Your task to perform on an android device: Open calendar and show me the third week of next month Image 0: 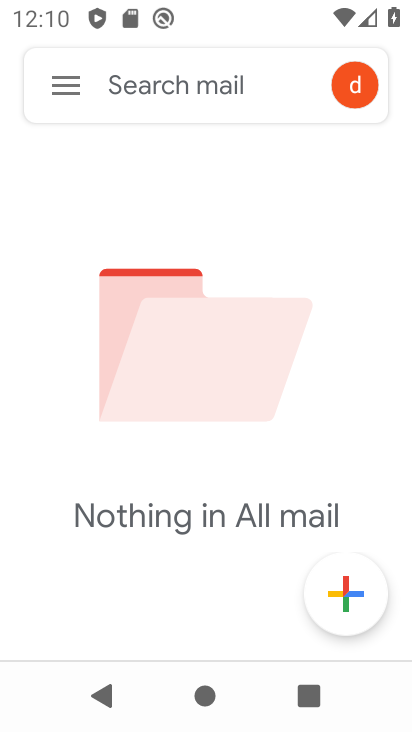
Step 0: press home button
Your task to perform on an android device: Open calendar and show me the third week of next month Image 1: 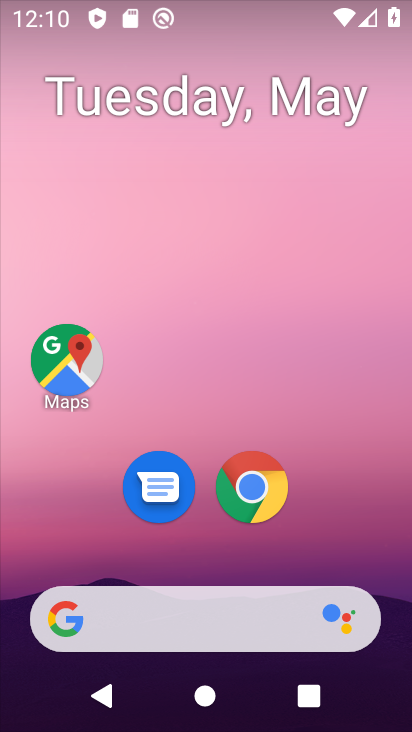
Step 1: drag from (320, 455) to (260, 35)
Your task to perform on an android device: Open calendar and show me the third week of next month Image 2: 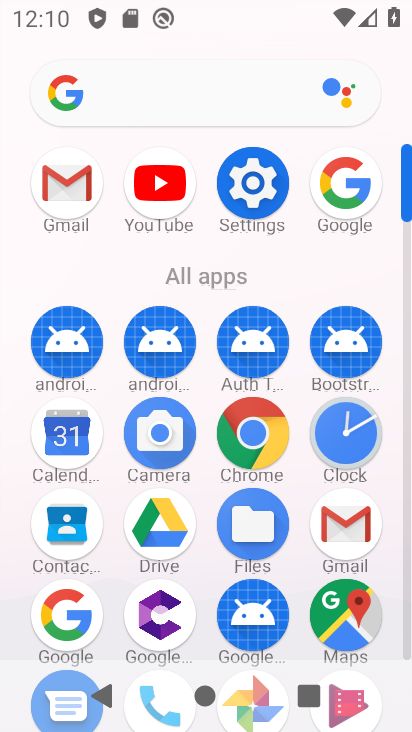
Step 2: click (56, 463)
Your task to perform on an android device: Open calendar and show me the third week of next month Image 3: 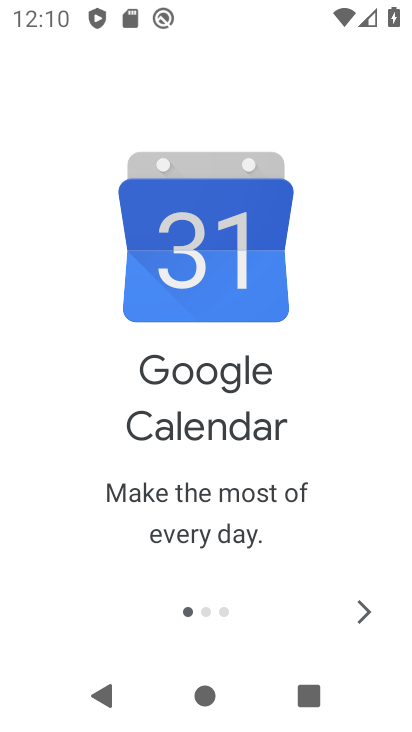
Step 3: click (192, 151)
Your task to perform on an android device: Open calendar and show me the third week of next month Image 4: 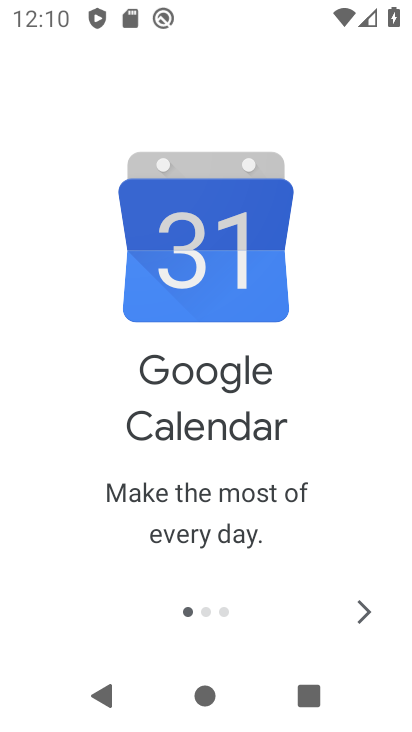
Step 4: click (362, 598)
Your task to perform on an android device: Open calendar and show me the third week of next month Image 5: 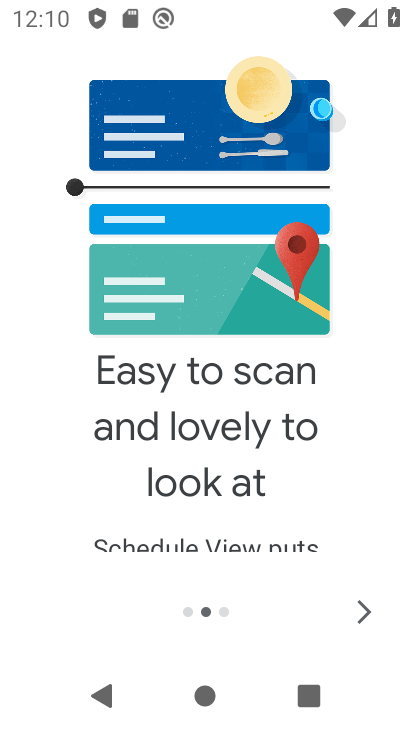
Step 5: click (360, 608)
Your task to perform on an android device: Open calendar and show me the third week of next month Image 6: 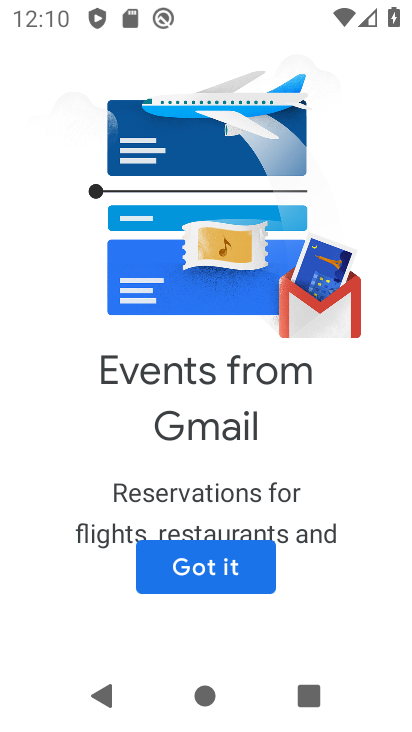
Step 6: click (225, 574)
Your task to perform on an android device: Open calendar and show me the third week of next month Image 7: 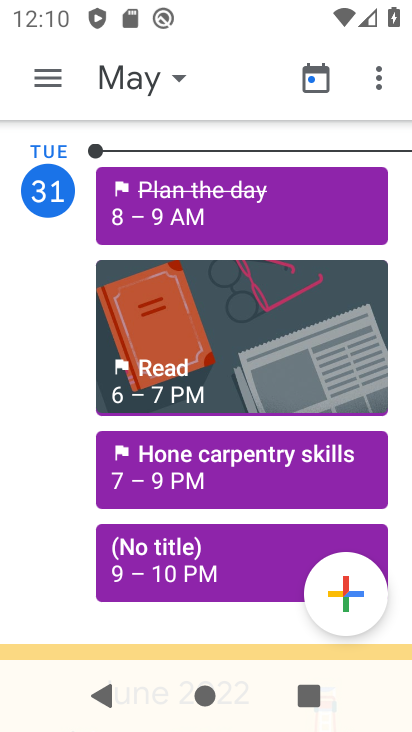
Step 7: click (51, 76)
Your task to perform on an android device: Open calendar and show me the third week of next month Image 8: 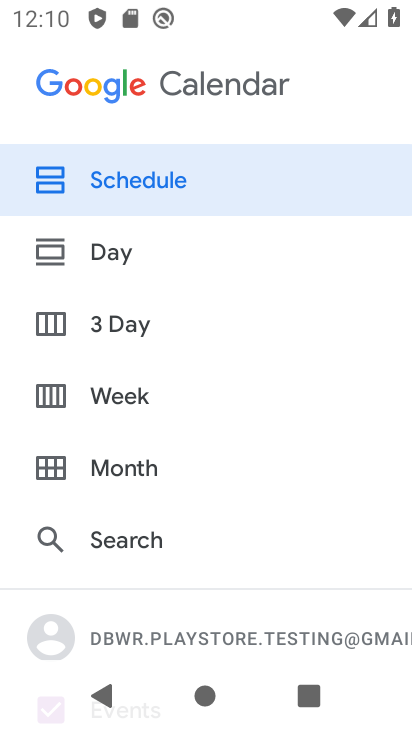
Step 8: click (106, 388)
Your task to perform on an android device: Open calendar and show me the third week of next month Image 9: 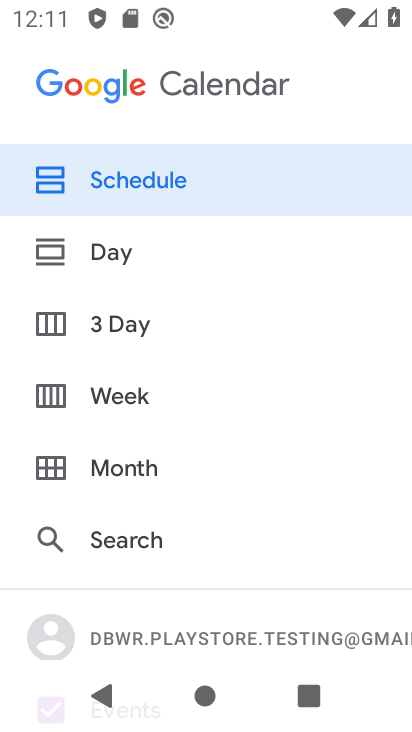
Step 9: click (260, 85)
Your task to perform on an android device: Open calendar and show me the third week of next month Image 10: 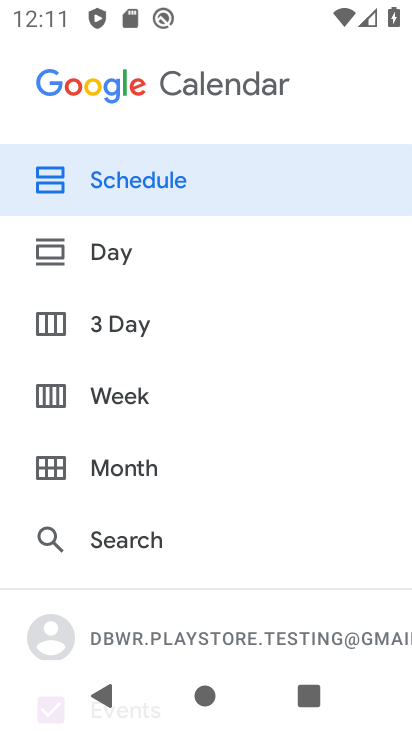
Step 10: click (115, 398)
Your task to perform on an android device: Open calendar and show me the third week of next month Image 11: 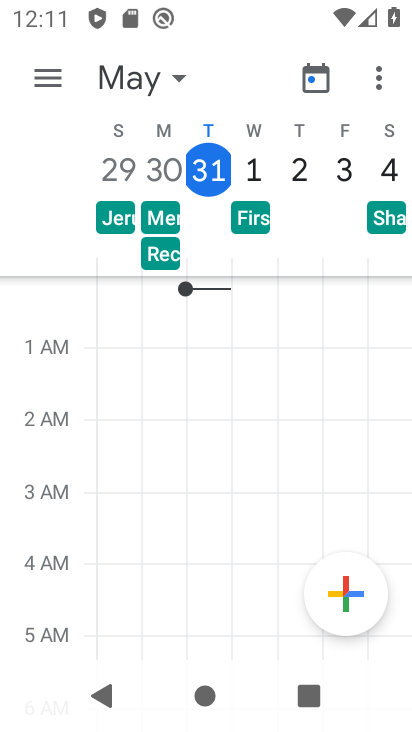
Step 11: click (177, 77)
Your task to perform on an android device: Open calendar and show me the third week of next month Image 12: 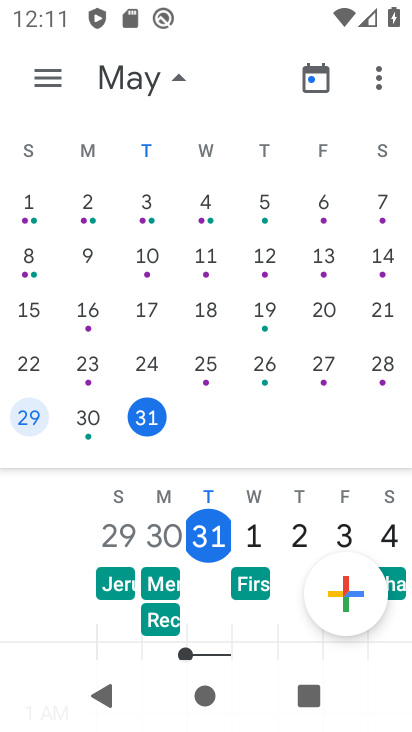
Step 12: drag from (355, 300) to (74, 210)
Your task to perform on an android device: Open calendar and show me the third week of next month Image 13: 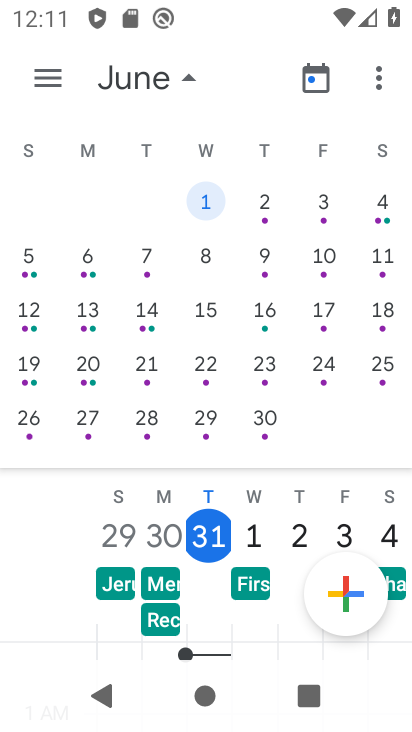
Step 13: click (35, 312)
Your task to perform on an android device: Open calendar and show me the third week of next month Image 14: 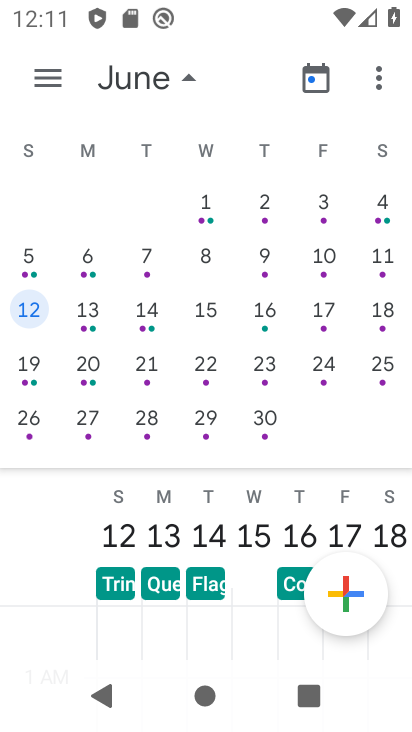
Step 14: task complete